Your task to perform on an android device: What's on my calendar today? Image 0: 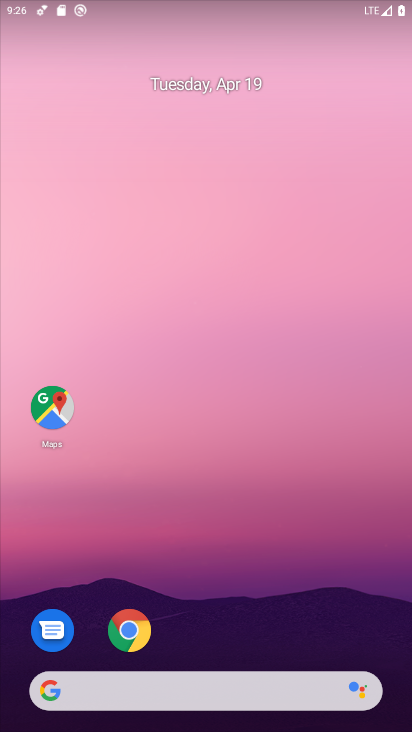
Step 0: drag from (242, 656) to (309, 269)
Your task to perform on an android device: What's on my calendar today? Image 1: 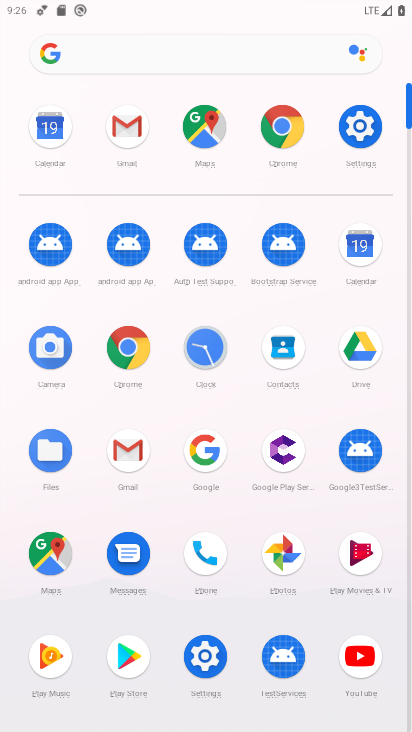
Step 1: click (366, 254)
Your task to perform on an android device: What's on my calendar today? Image 2: 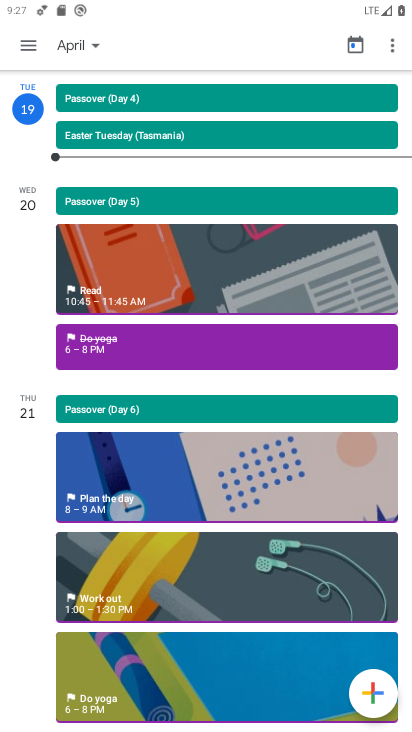
Step 2: task complete